Your task to perform on an android device: Search for the new lego star wars 2021 on Target Image 0: 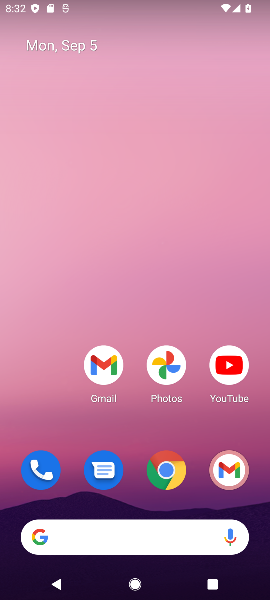
Step 0: click (115, 530)
Your task to perform on an android device: Search for the new lego star wars 2021 on Target Image 1: 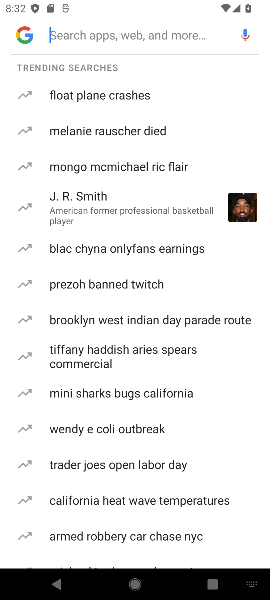
Step 1: type "target"
Your task to perform on an android device: Search for the new lego star wars 2021 on Target Image 2: 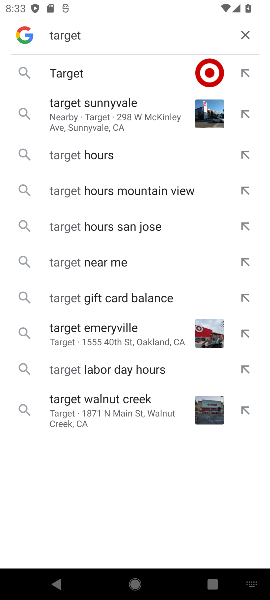
Step 2: click (58, 74)
Your task to perform on an android device: Search for the new lego star wars 2021 on Target Image 3: 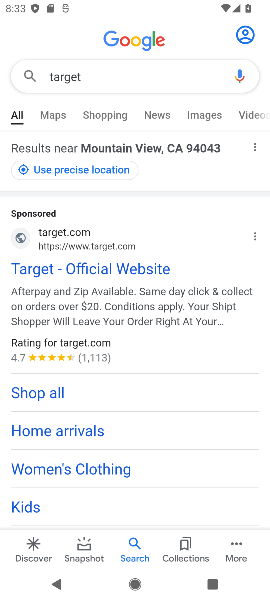
Step 3: click (37, 264)
Your task to perform on an android device: Search for the new lego star wars 2021 on Target Image 4: 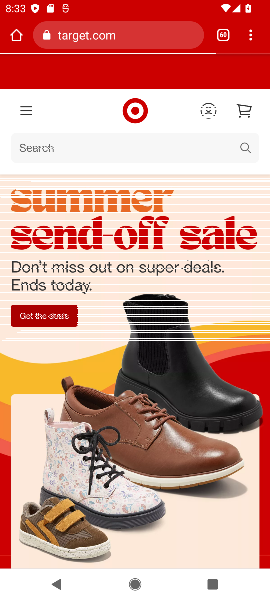
Step 4: click (67, 147)
Your task to perform on an android device: Search for the new lego star wars 2021 on Target Image 5: 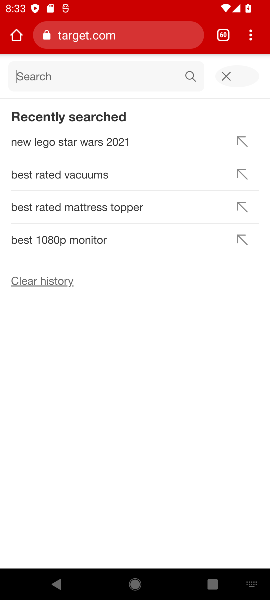
Step 5: type "new lego star wars 2021"
Your task to perform on an android device: Search for the new lego star wars 2021 on Target Image 6: 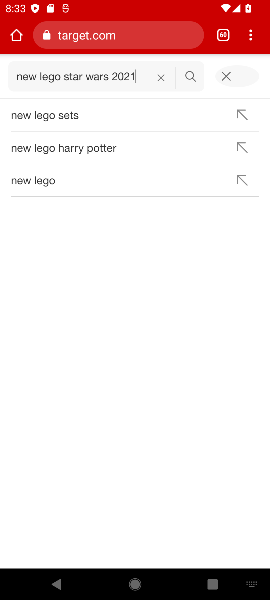
Step 6: click (184, 68)
Your task to perform on an android device: Search for the new lego star wars 2021 on Target Image 7: 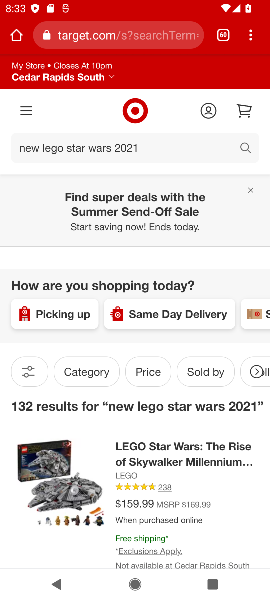
Step 7: task complete